Your task to perform on an android device: install app "Yahoo Mail" Image 0: 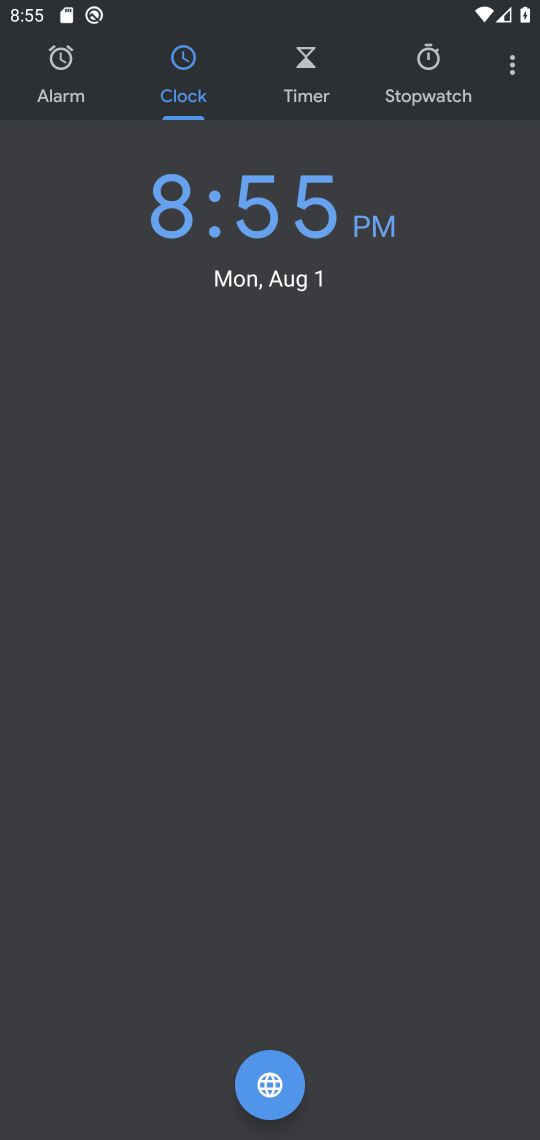
Step 0: press home button
Your task to perform on an android device: install app "Yahoo Mail" Image 1: 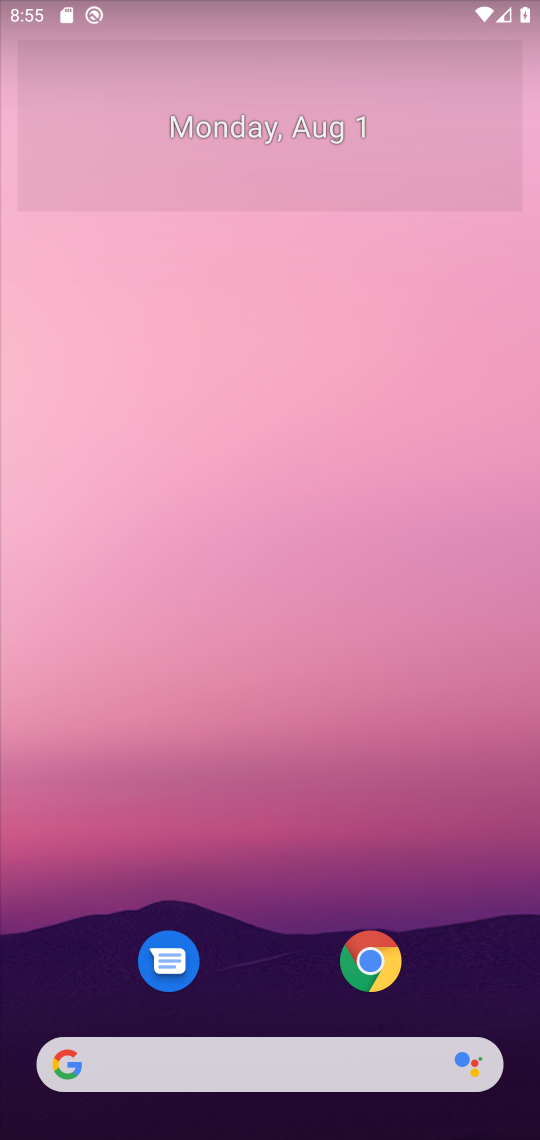
Step 1: drag from (448, 754) to (478, 75)
Your task to perform on an android device: install app "Yahoo Mail" Image 2: 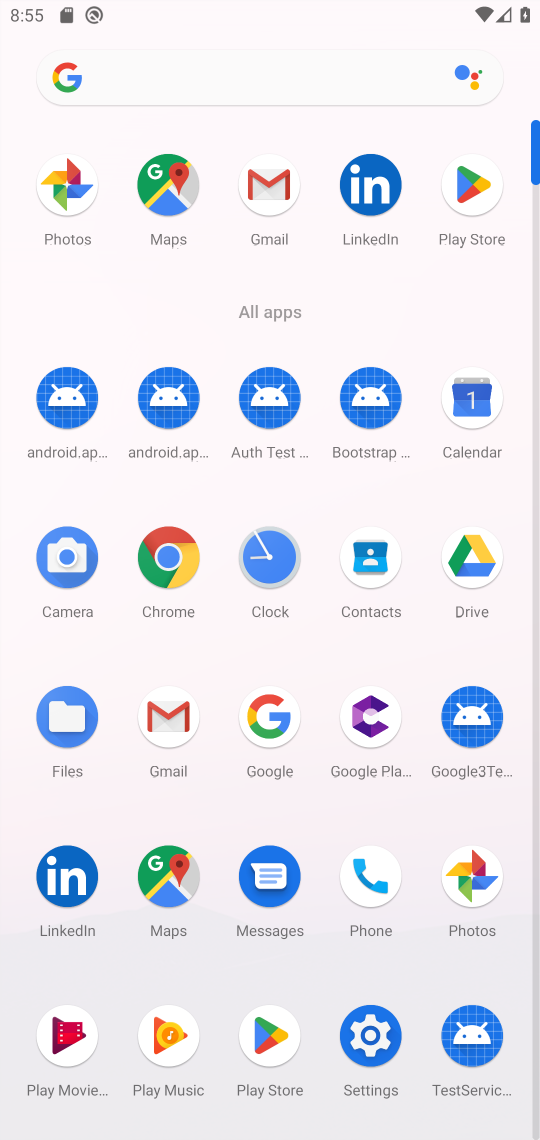
Step 2: click (507, 210)
Your task to perform on an android device: install app "Yahoo Mail" Image 3: 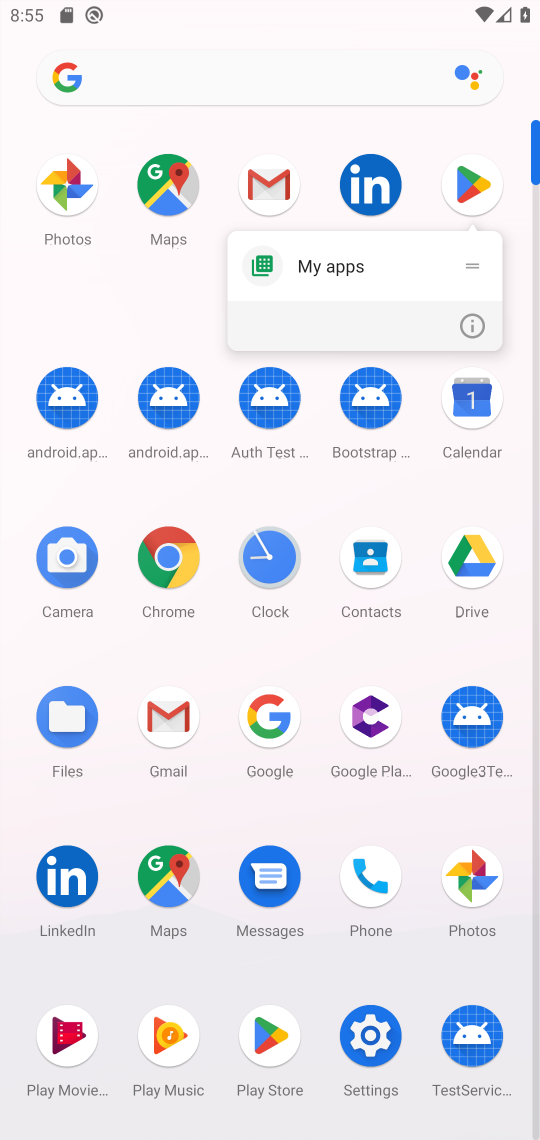
Step 3: click (480, 185)
Your task to perform on an android device: install app "Yahoo Mail" Image 4: 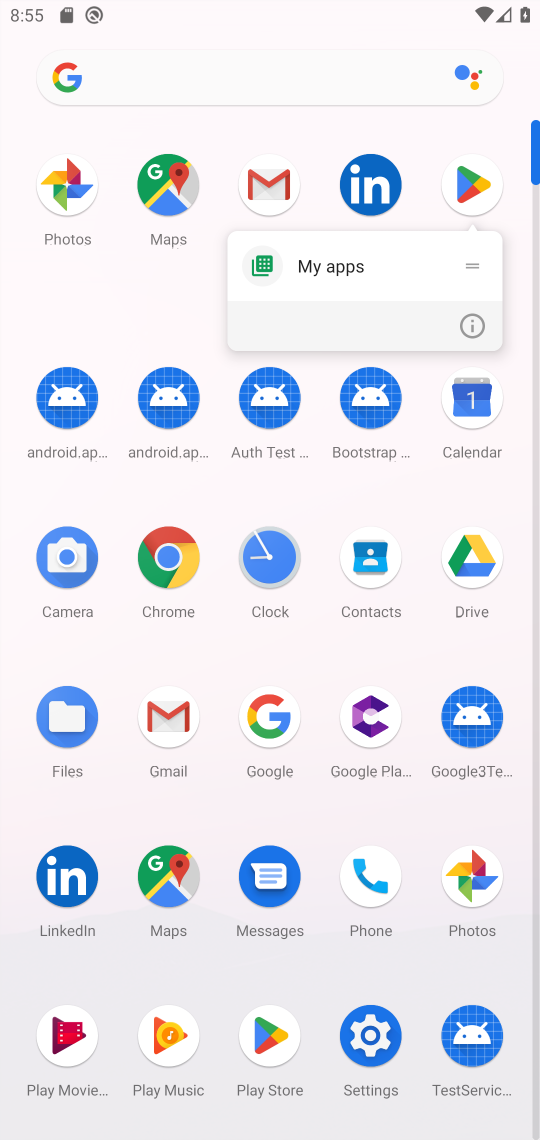
Step 4: click (480, 185)
Your task to perform on an android device: install app "Yahoo Mail" Image 5: 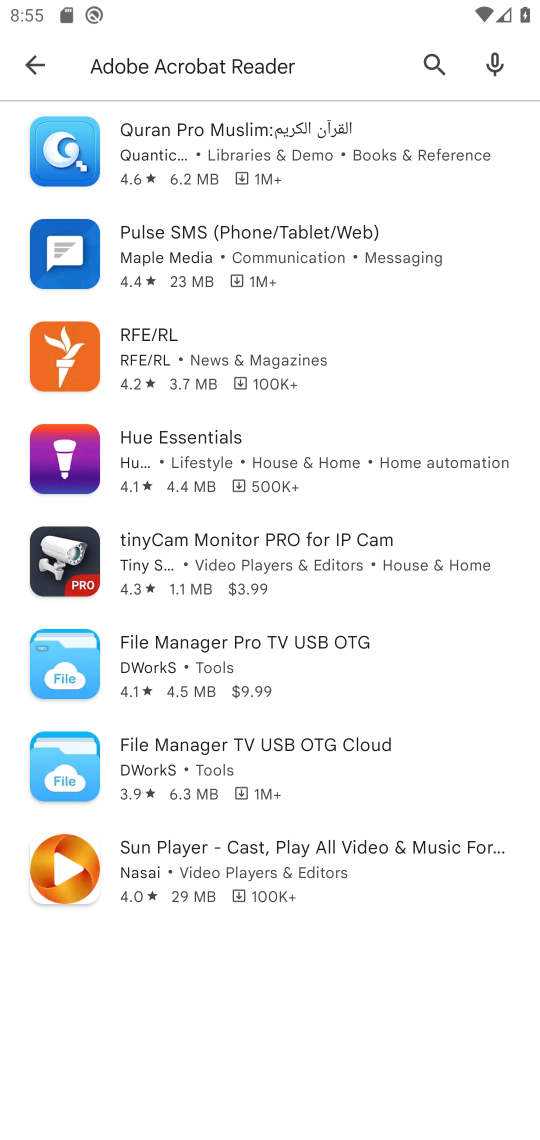
Step 5: click (40, 74)
Your task to perform on an android device: install app "Yahoo Mail" Image 6: 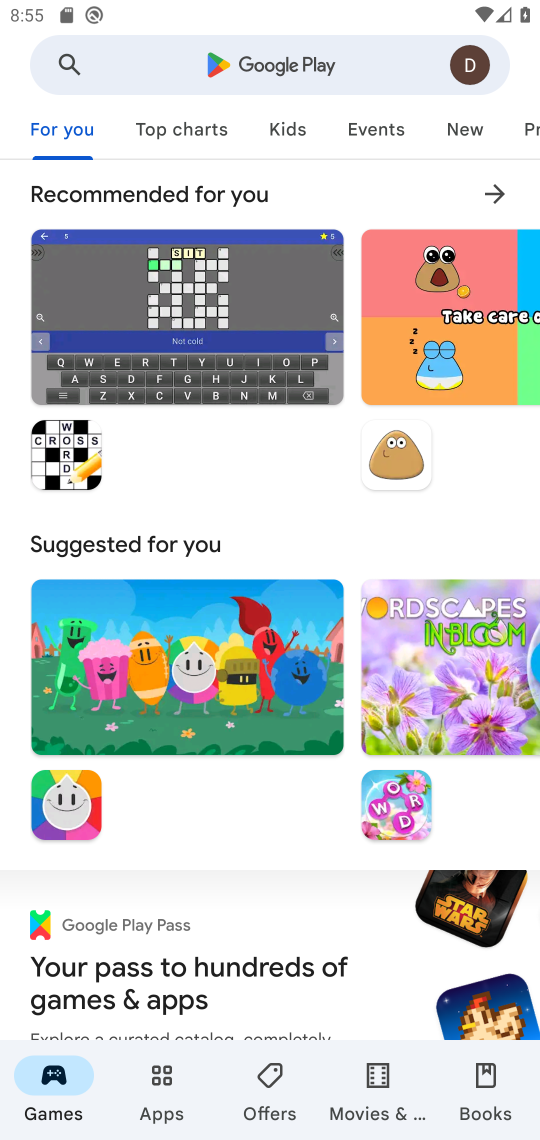
Step 6: click (174, 67)
Your task to perform on an android device: install app "Yahoo Mail" Image 7: 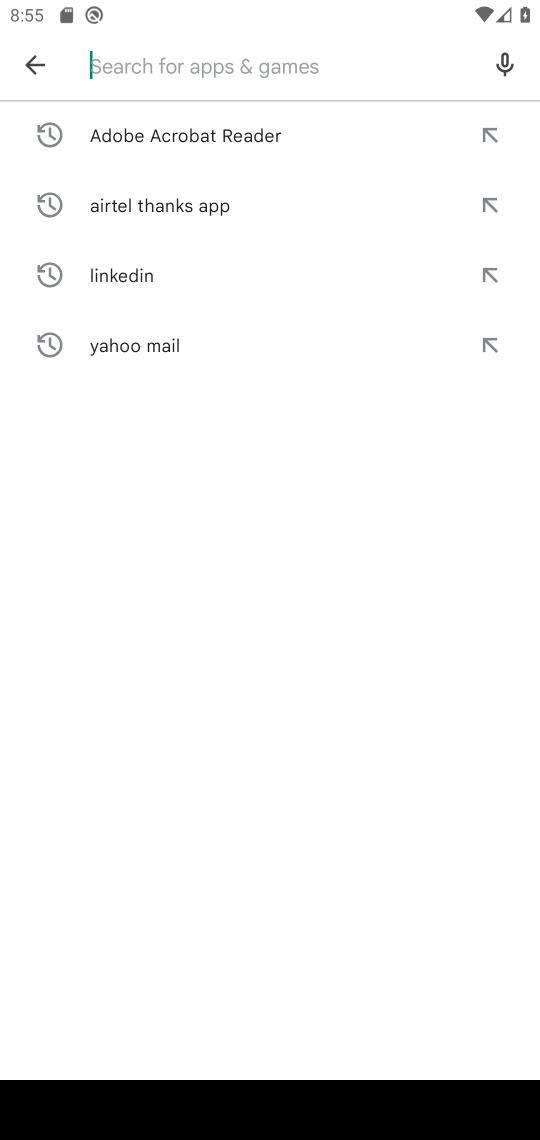
Step 7: click (103, 351)
Your task to perform on an android device: install app "Yahoo Mail" Image 8: 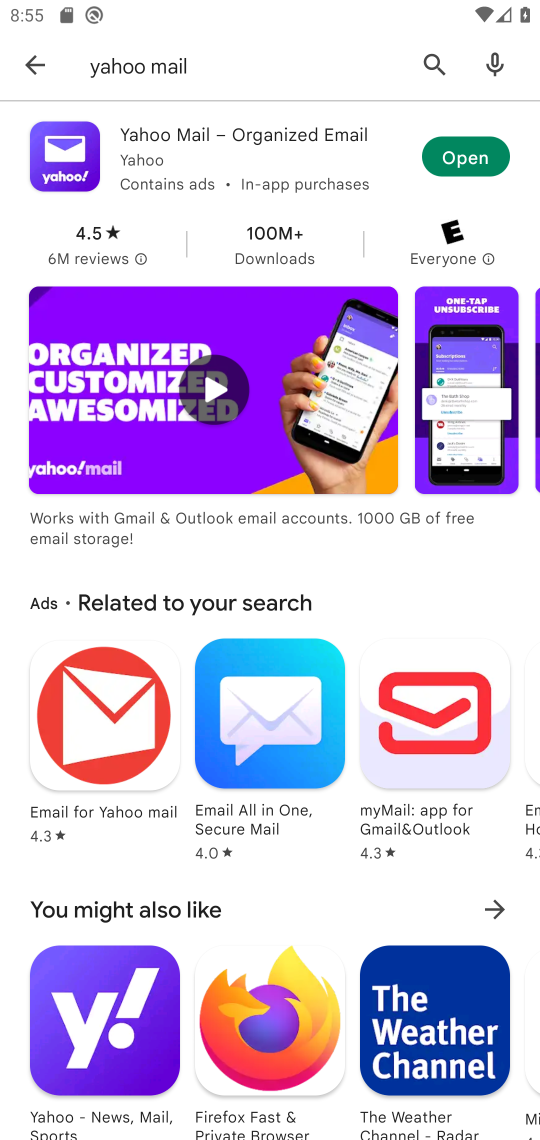
Step 8: click (471, 158)
Your task to perform on an android device: install app "Yahoo Mail" Image 9: 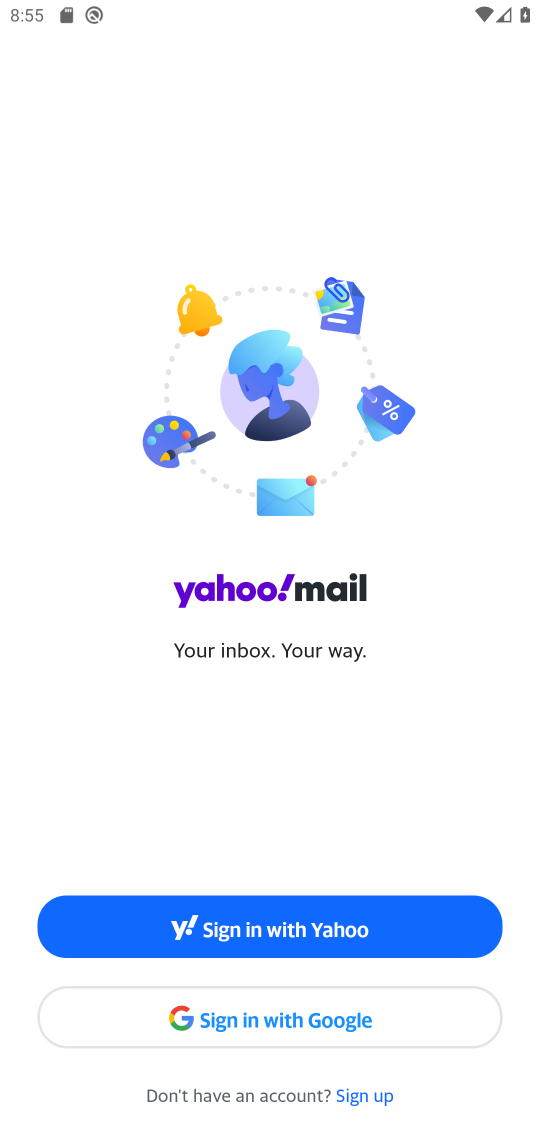
Step 9: click (251, 934)
Your task to perform on an android device: install app "Yahoo Mail" Image 10: 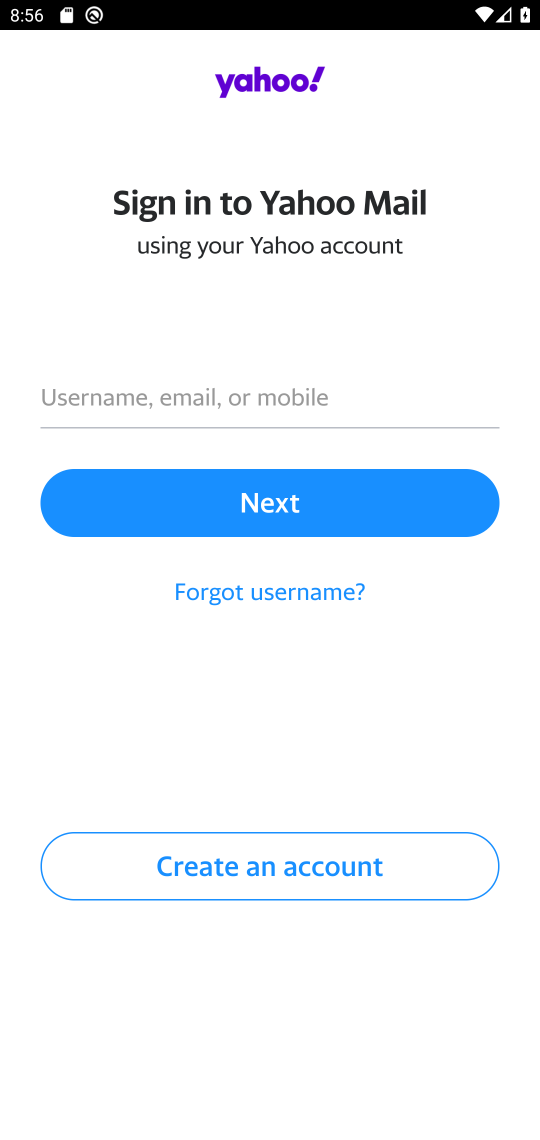
Step 10: task complete